Your task to perform on an android device: Do I have any events today? Image 0: 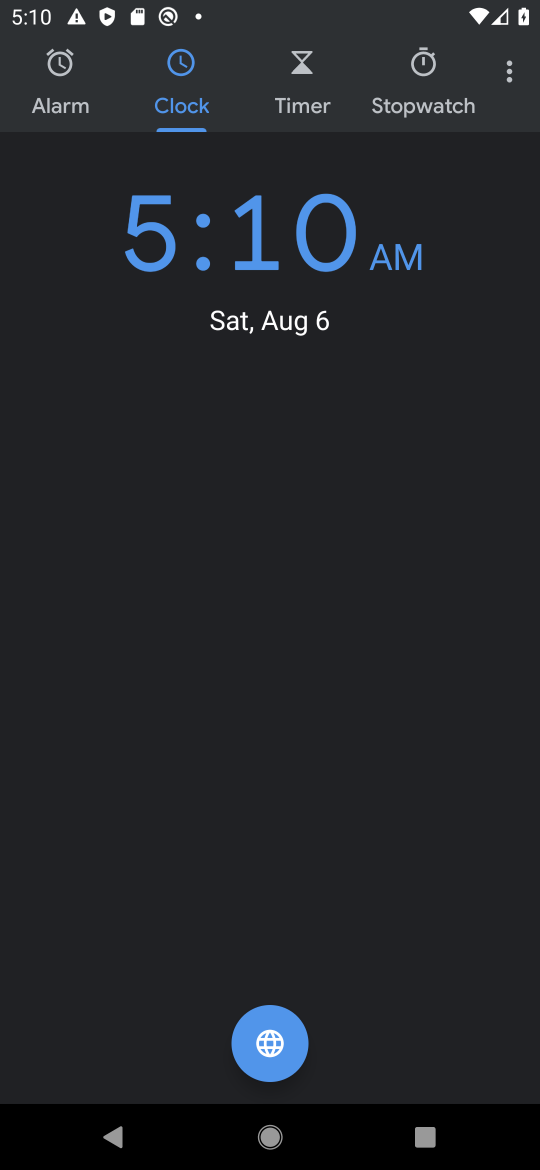
Step 0: press home button
Your task to perform on an android device: Do I have any events today? Image 1: 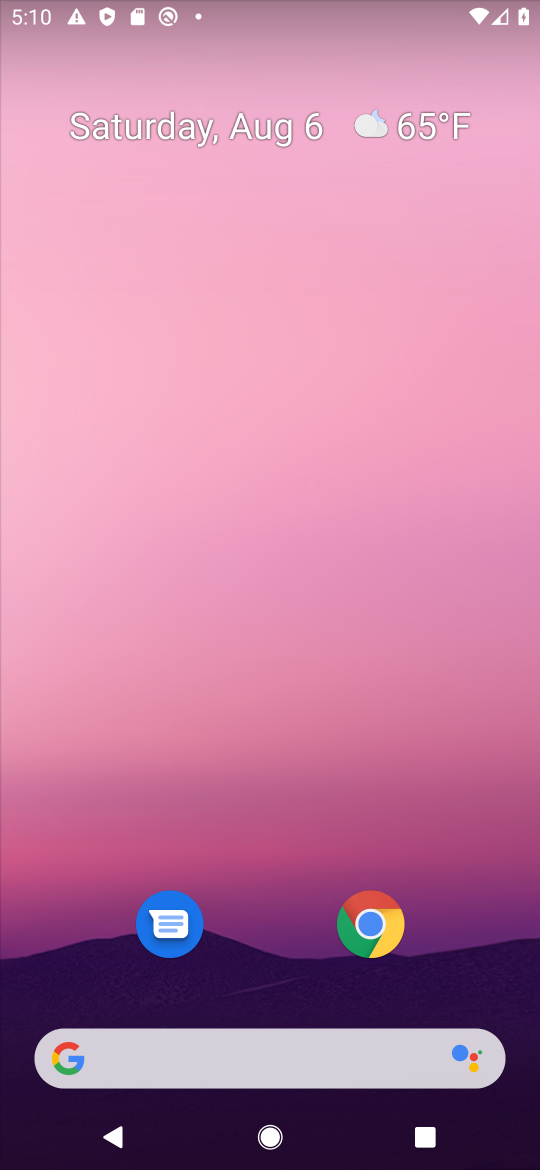
Step 1: drag from (226, 1000) to (293, 132)
Your task to perform on an android device: Do I have any events today? Image 2: 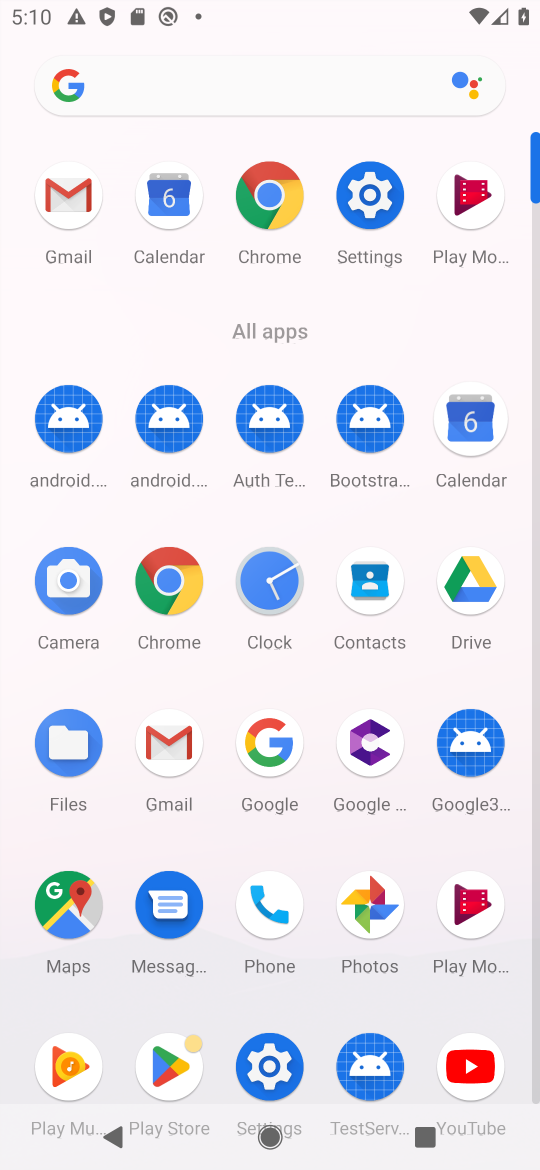
Step 2: click (473, 424)
Your task to perform on an android device: Do I have any events today? Image 3: 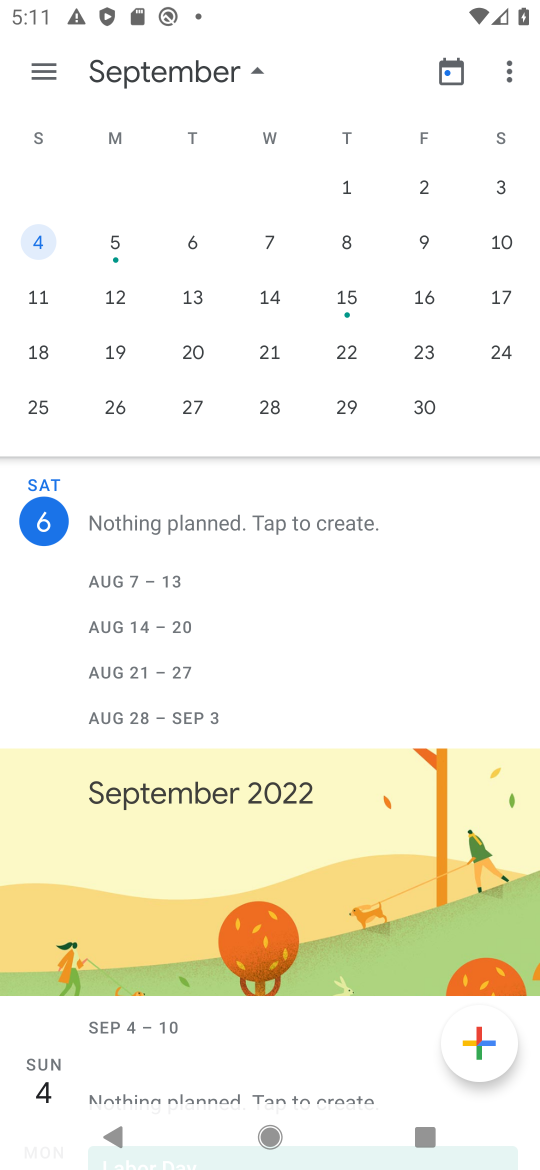
Step 3: drag from (7, 219) to (498, 231)
Your task to perform on an android device: Do I have any events today? Image 4: 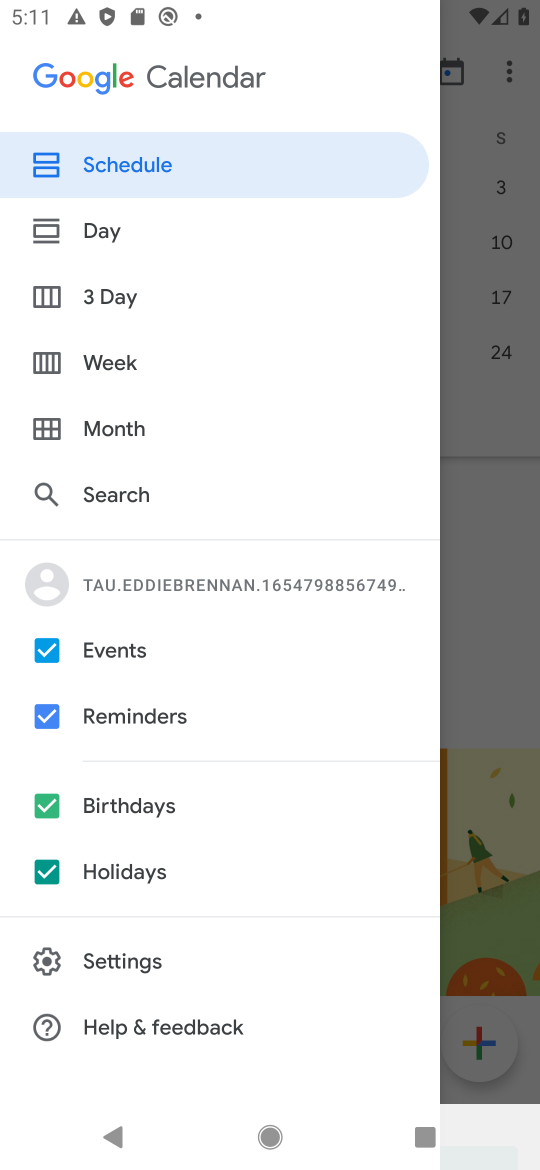
Step 4: click (472, 256)
Your task to perform on an android device: Do I have any events today? Image 5: 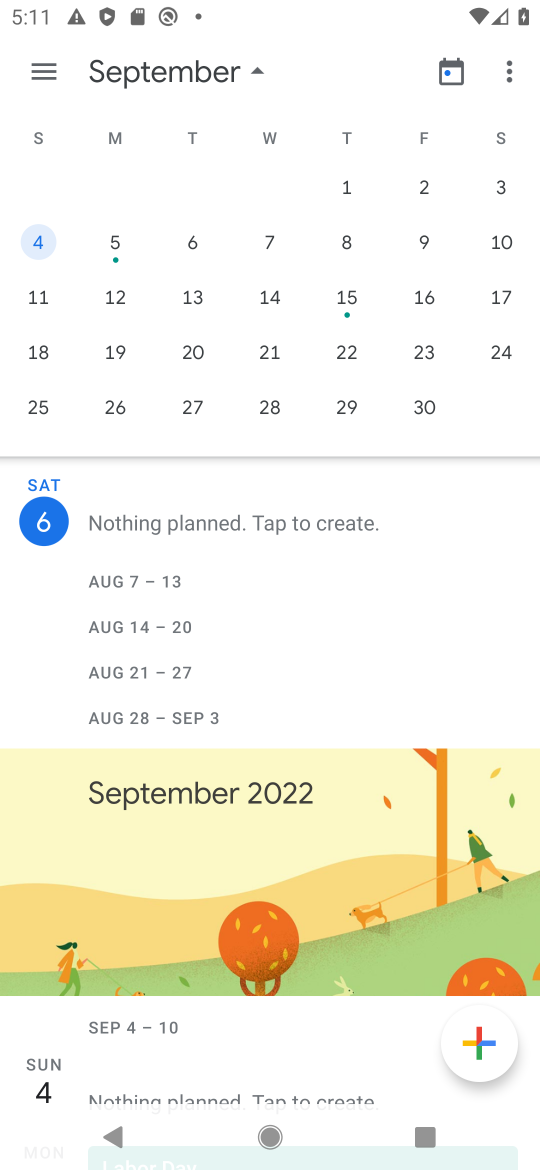
Step 5: task complete